Your task to perform on an android device: What time is it in Tokyo? Image 0: 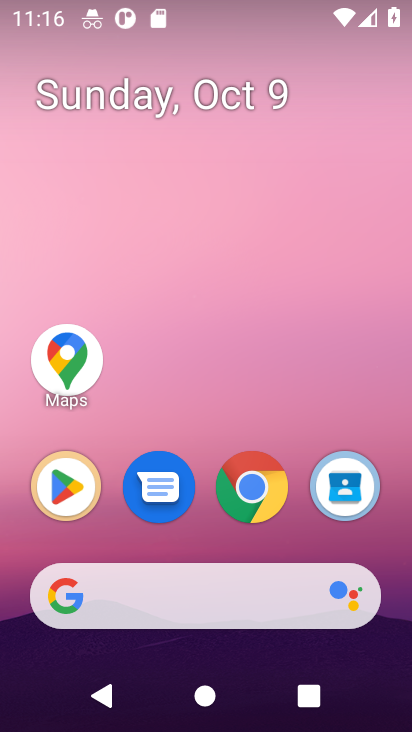
Step 0: click (266, 495)
Your task to perform on an android device: What time is it in Tokyo? Image 1: 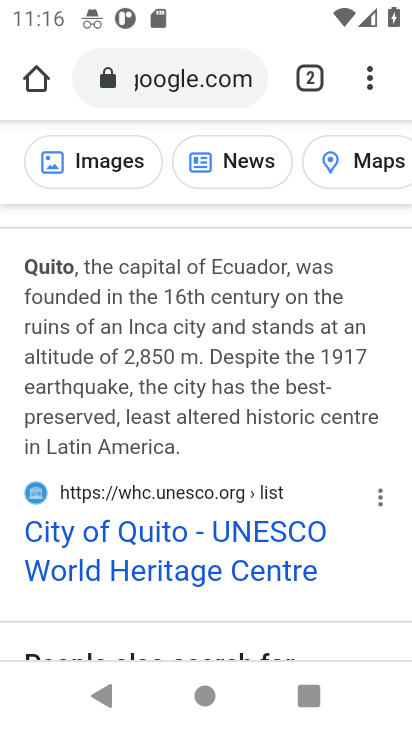
Step 1: click (208, 76)
Your task to perform on an android device: What time is it in Tokyo? Image 2: 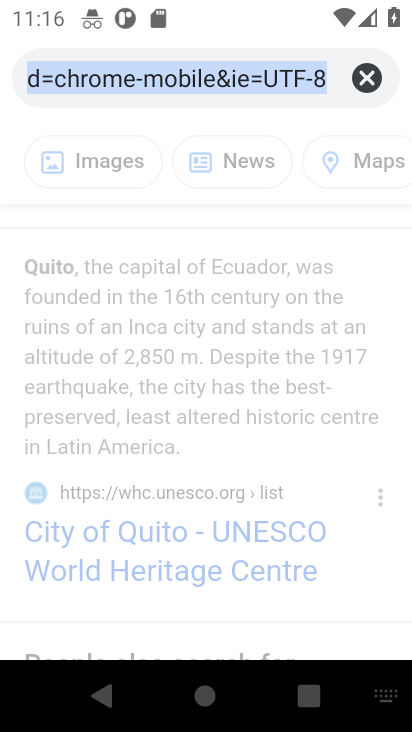
Step 2: type "time in tokyo"
Your task to perform on an android device: What time is it in Tokyo? Image 3: 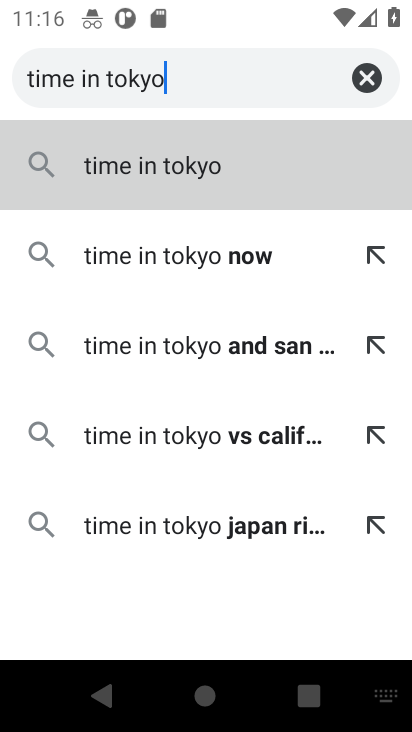
Step 3: type ""
Your task to perform on an android device: What time is it in Tokyo? Image 4: 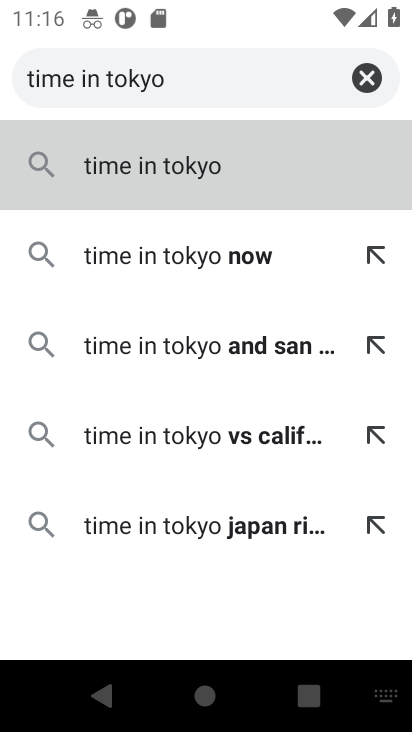
Step 4: press enter
Your task to perform on an android device: What time is it in Tokyo? Image 5: 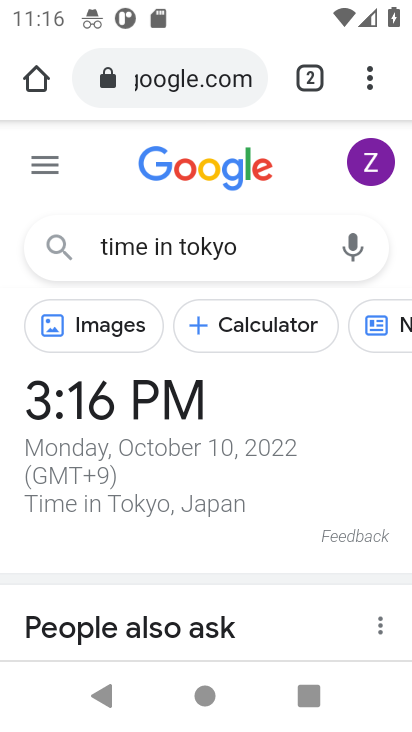
Step 5: task complete